Your task to perform on an android device: turn on bluetooth scan Image 0: 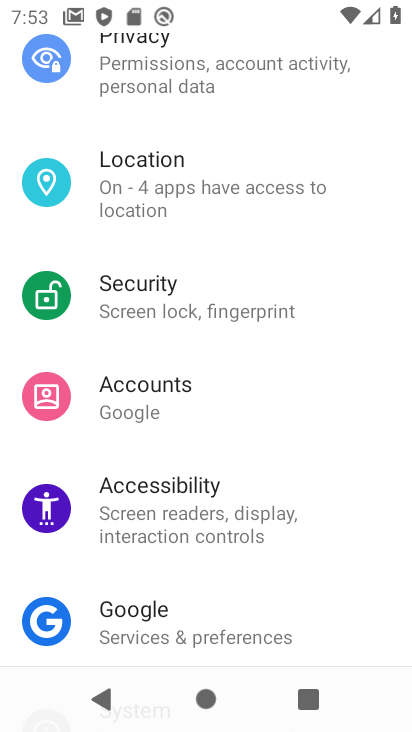
Step 0: drag from (225, 585) to (215, 133)
Your task to perform on an android device: turn on bluetooth scan Image 1: 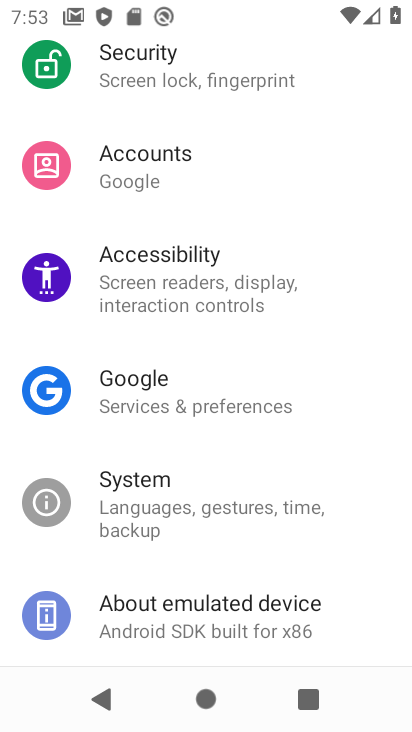
Step 1: drag from (177, 274) to (286, 638)
Your task to perform on an android device: turn on bluetooth scan Image 2: 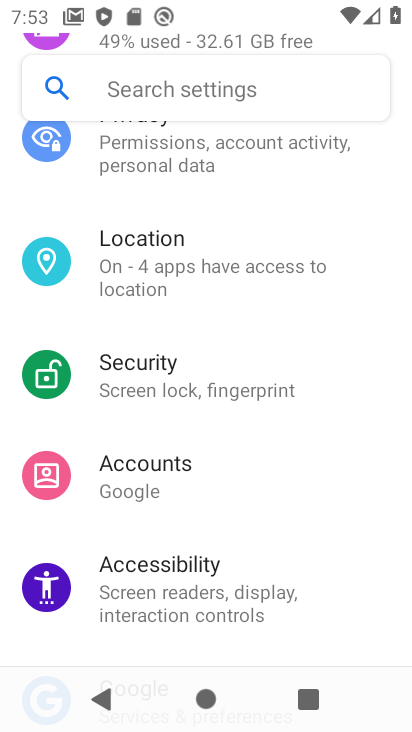
Step 2: click (214, 278)
Your task to perform on an android device: turn on bluetooth scan Image 3: 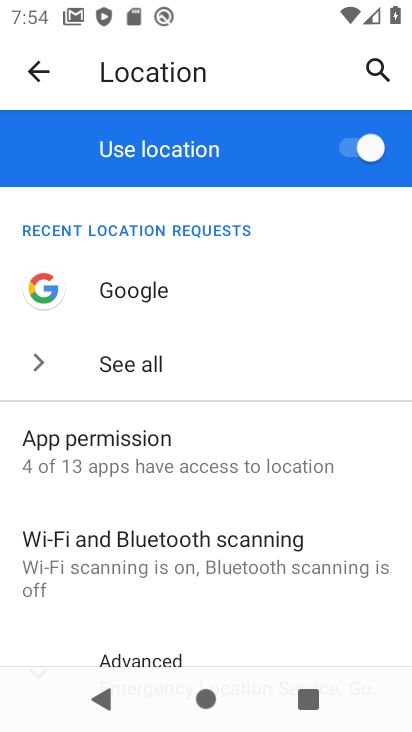
Step 3: click (255, 575)
Your task to perform on an android device: turn on bluetooth scan Image 4: 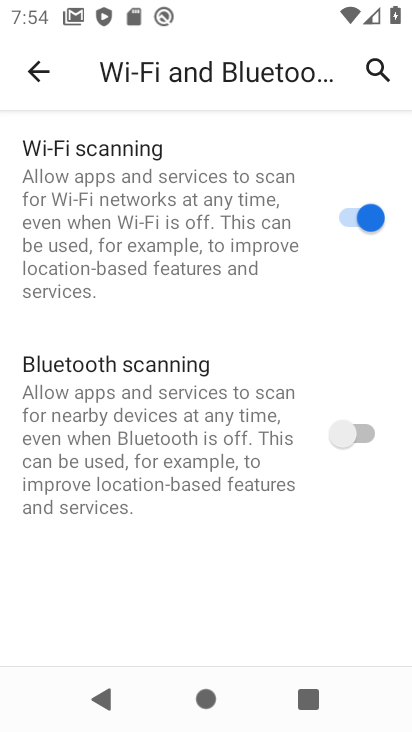
Step 4: click (373, 426)
Your task to perform on an android device: turn on bluetooth scan Image 5: 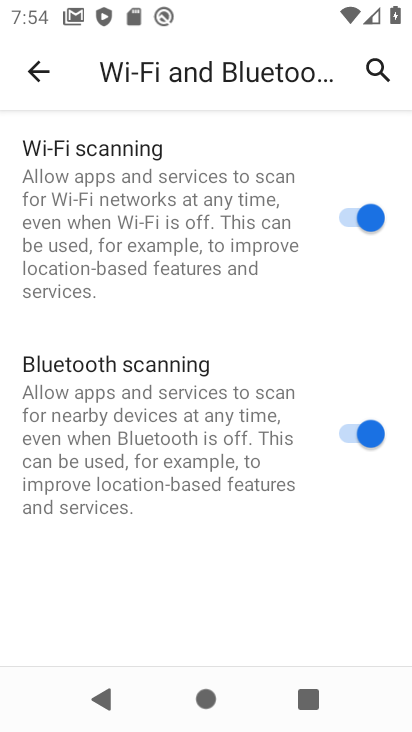
Step 5: task complete